Your task to perform on an android device: turn on the 24-hour format for clock Image 0: 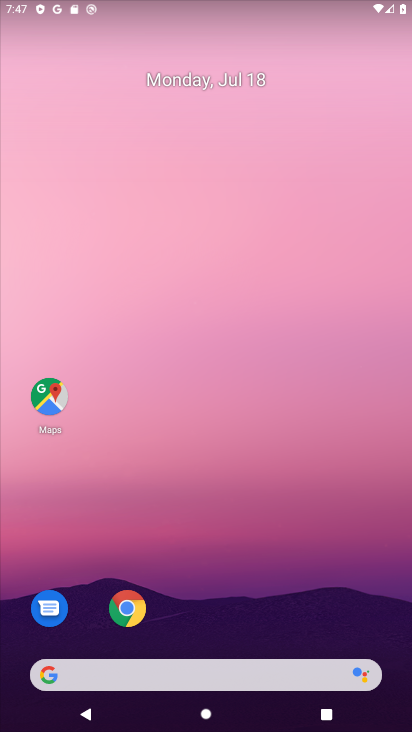
Step 0: drag from (205, 631) to (202, 126)
Your task to perform on an android device: turn on the 24-hour format for clock Image 1: 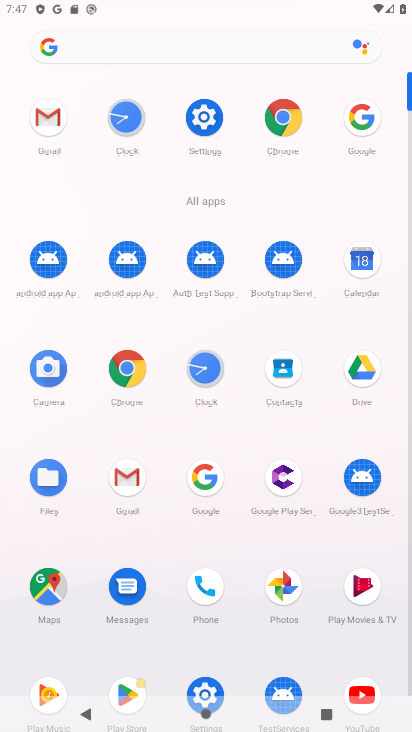
Step 1: click (203, 375)
Your task to perform on an android device: turn on the 24-hour format for clock Image 2: 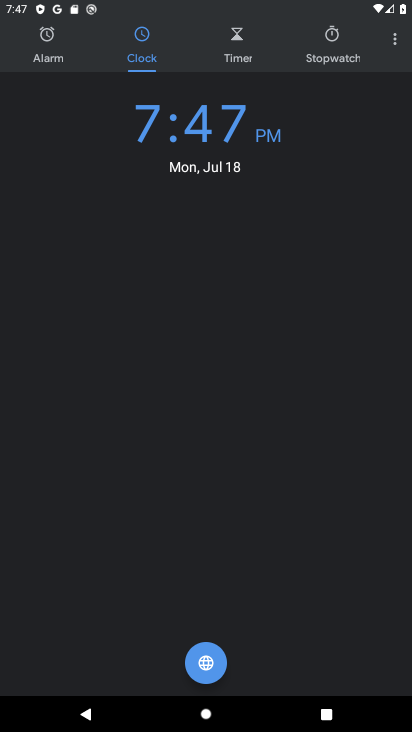
Step 2: click (394, 45)
Your task to perform on an android device: turn on the 24-hour format for clock Image 3: 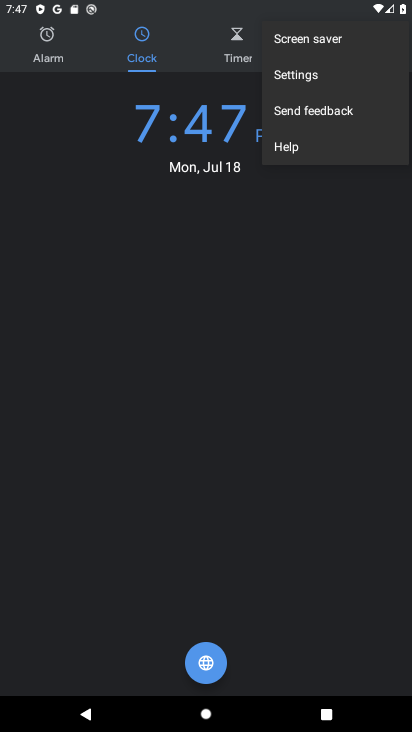
Step 3: click (299, 76)
Your task to perform on an android device: turn on the 24-hour format for clock Image 4: 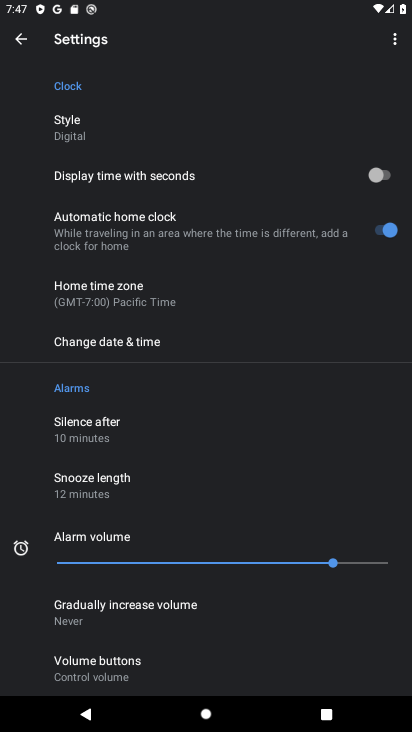
Step 4: drag from (187, 648) to (178, 489)
Your task to perform on an android device: turn on the 24-hour format for clock Image 5: 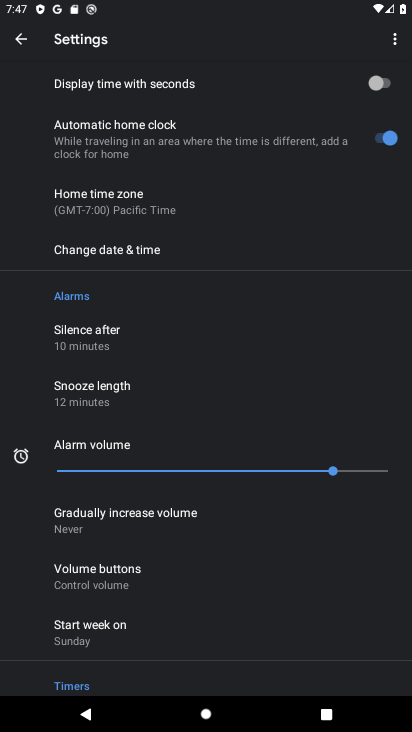
Step 5: click (156, 248)
Your task to perform on an android device: turn on the 24-hour format for clock Image 6: 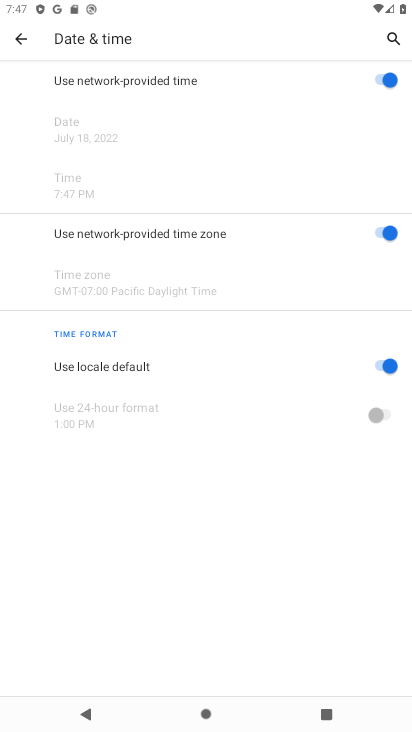
Step 6: click (388, 369)
Your task to perform on an android device: turn on the 24-hour format for clock Image 7: 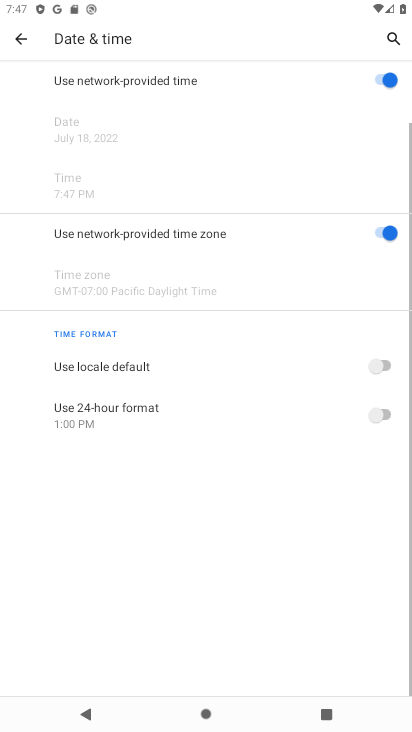
Step 7: click (379, 415)
Your task to perform on an android device: turn on the 24-hour format for clock Image 8: 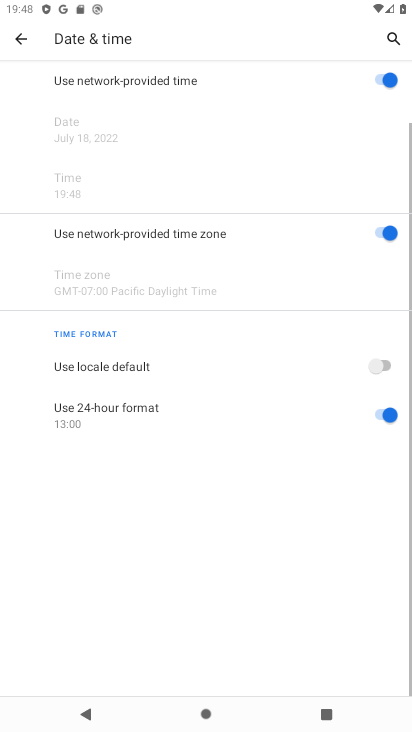
Step 8: task complete